Your task to perform on an android device: Go to accessibility settings Image 0: 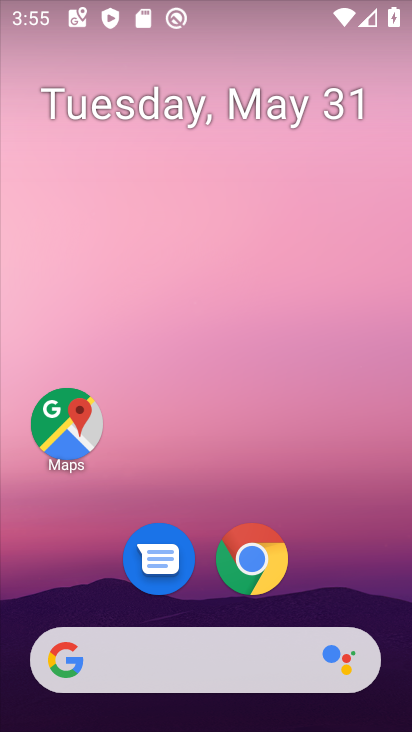
Step 0: drag from (226, 721) to (229, 104)
Your task to perform on an android device: Go to accessibility settings Image 1: 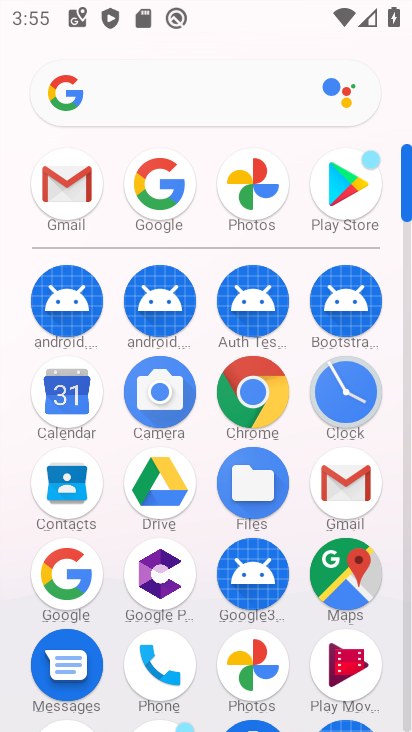
Step 1: drag from (199, 658) to (207, 304)
Your task to perform on an android device: Go to accessibility settings Image 2: 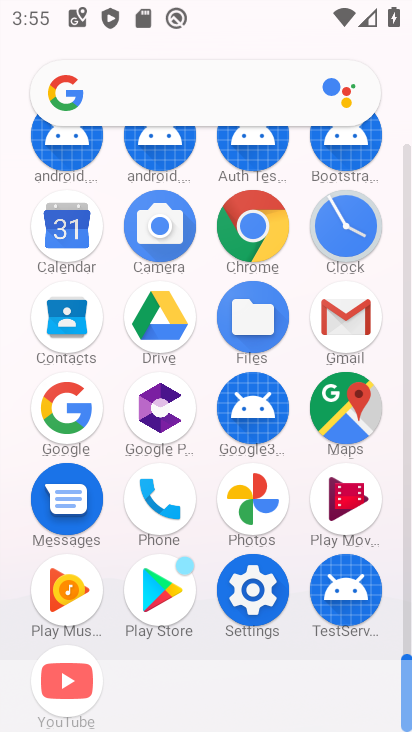
Step 2: click (238, 598)
Your task to perform on an android device: Go to accessibility settings Image 3: 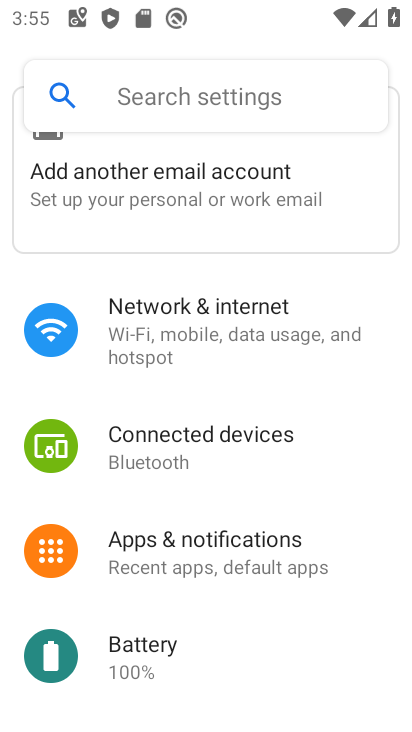
Step 3: drag from (194, 630) to (196, 304)
Your task to perform on an android device: Go to accessibility settings Image 4: 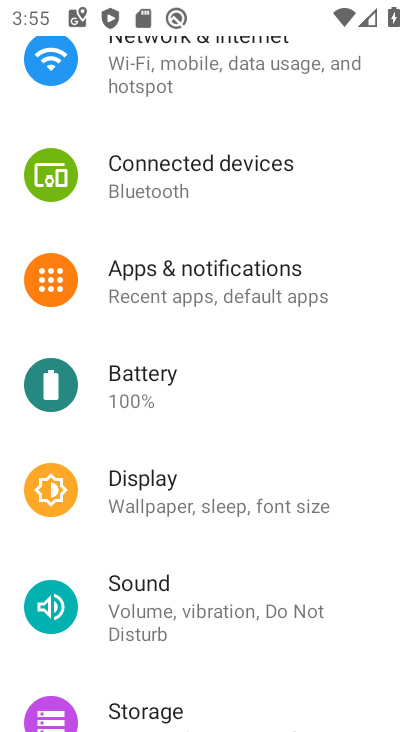
Step 4: drag from (184, 679) to (188, 242)
Your task to perform on an android device: Go to accessibility settings Image 5: 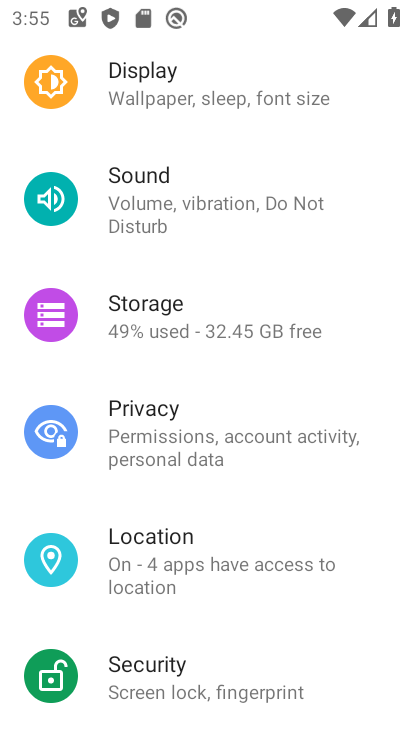
Step 5: drag from (165, 610) to (165, 229)
Your task to perform on an android device: Go to accessibility settings Image 6: 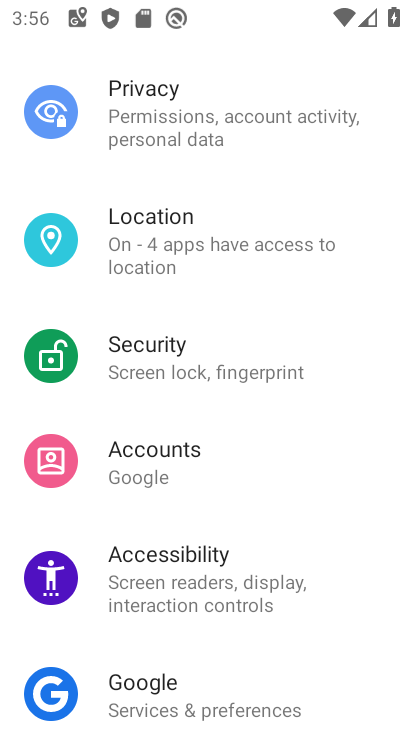
Step 6: click (158, 571)
Your task to perform on an android device: Go to accessibility settings Image 7: 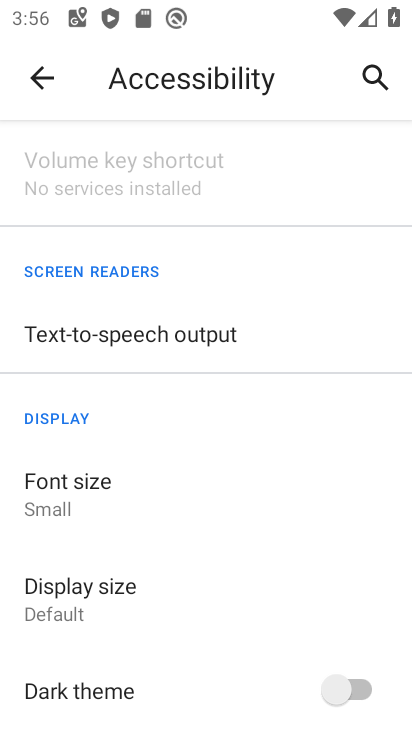
Step 7: task complete